Your task to perform on an android device: change keyboard looks Image 0: 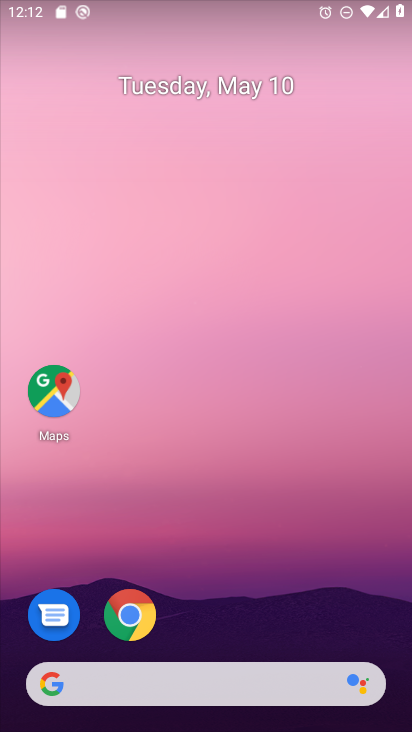
Step 0: drag from (245, 717) to (278, 217)
Your task to perform on an android device: change keyboard looks Image 1: 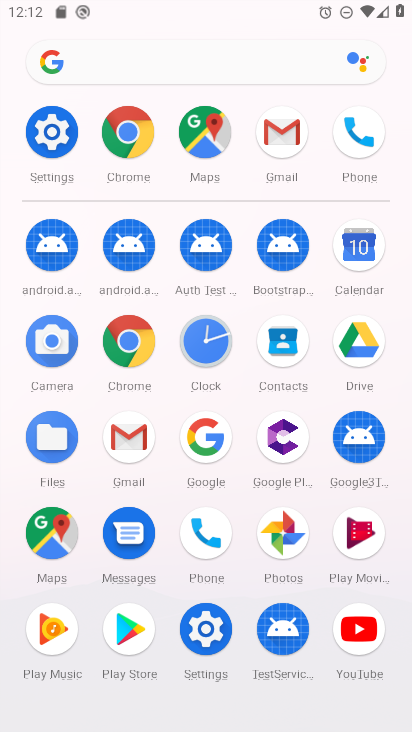
Step 1: click (59, 139)
Your task to perform on an android device: change keyboard looks Image 2: 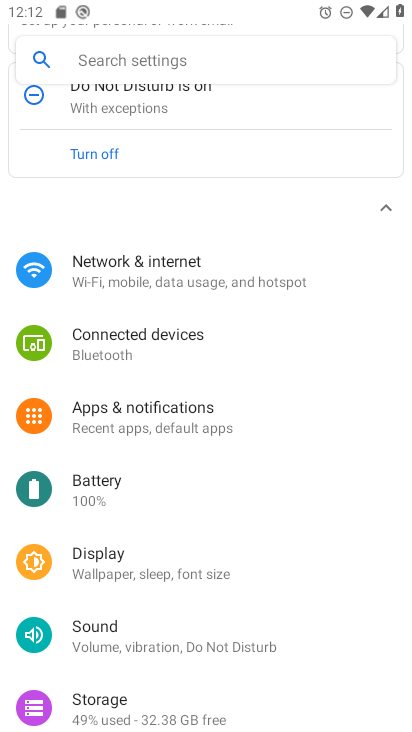
Step 2: click (164, 67)
Your task to perform on an android device: change keyboard looks Image 3: 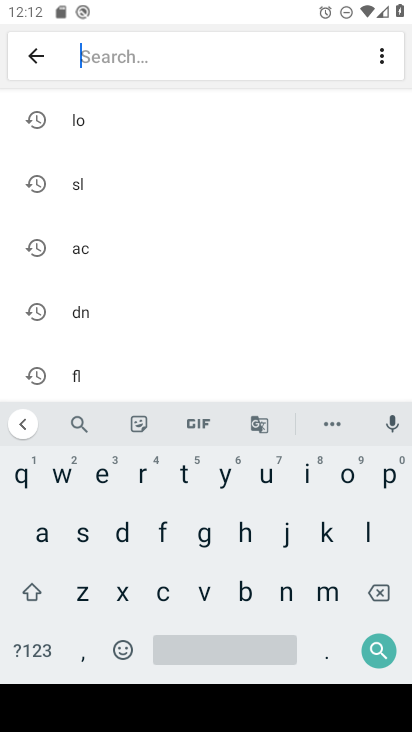
Step 3: click (327, 538)
Your task to perform on an android device: change keyboard looks Image 4: 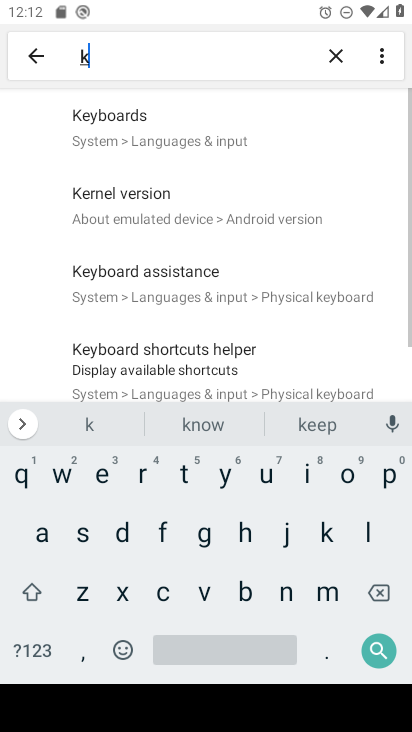
Step 4: click (101, 479)
Your task to perform on an android device: change keyboard looks Image 5: 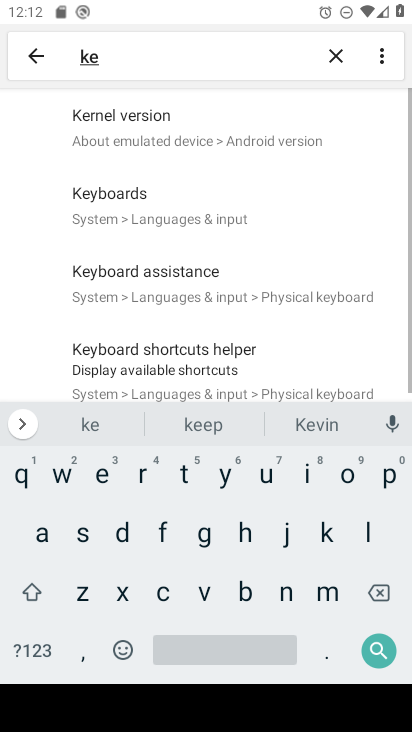
Step 5: click (225, 477)
Your task to perform on an android device: change keyboard looks Image 6: 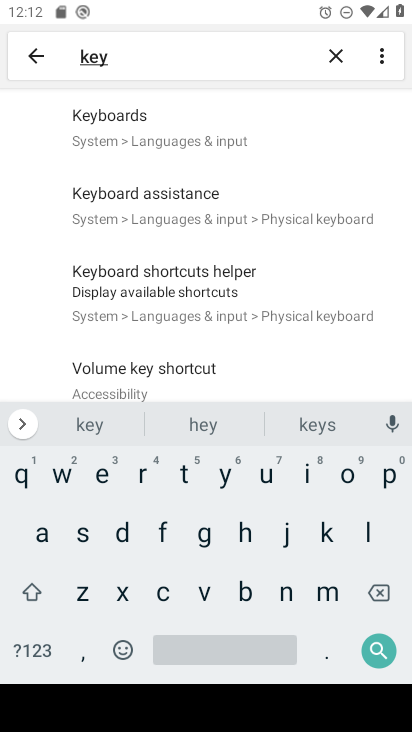
Step 6: click (124, 117)
Your task to perform on an android device: change keyboard looks Image 7: 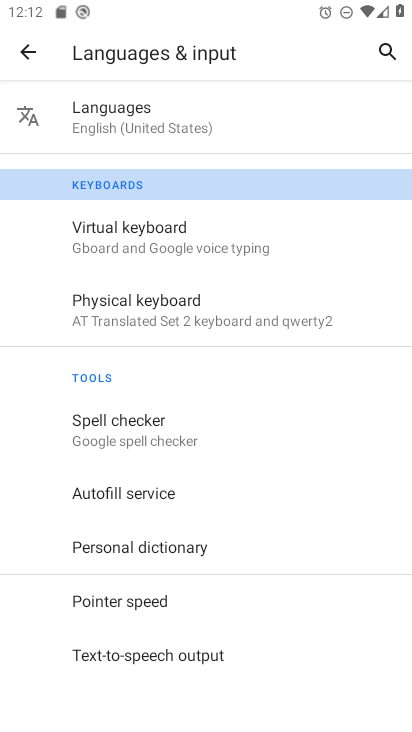
Step 7: click (121, 240)
Your task to perform on an android device: change keyboard looks Image 8: 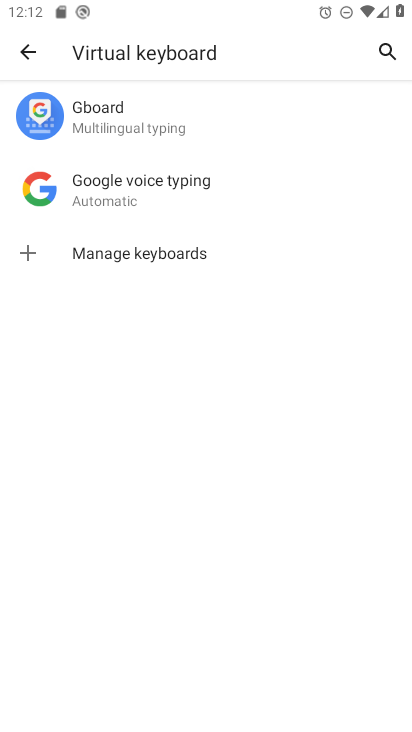
Step 8: click (162, 118)
Your task to perform on an android device: change keyboard looks Image 9: 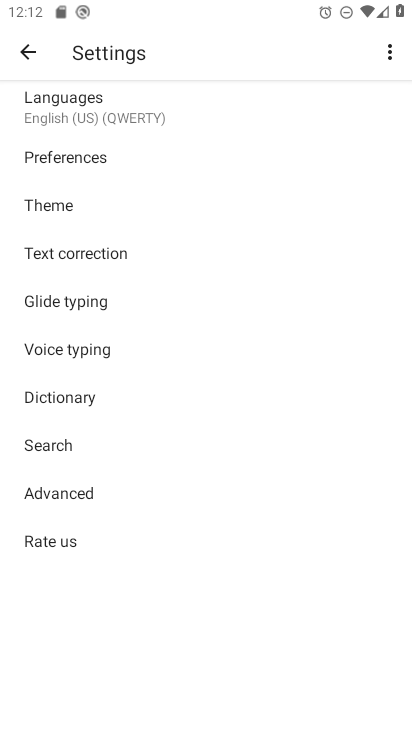
Step 9: click (82, 197)
Your task to perform on an android device: change keyboard looks Image 10: 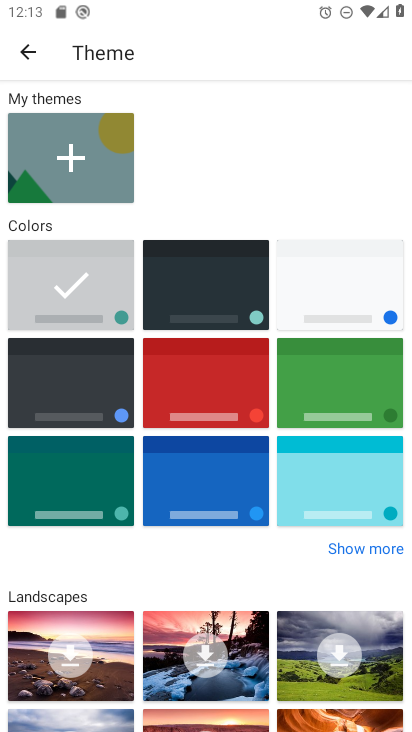
Step 10: click (349, 467)
Your task to perform on an android device: change keyboard looks Image 11: 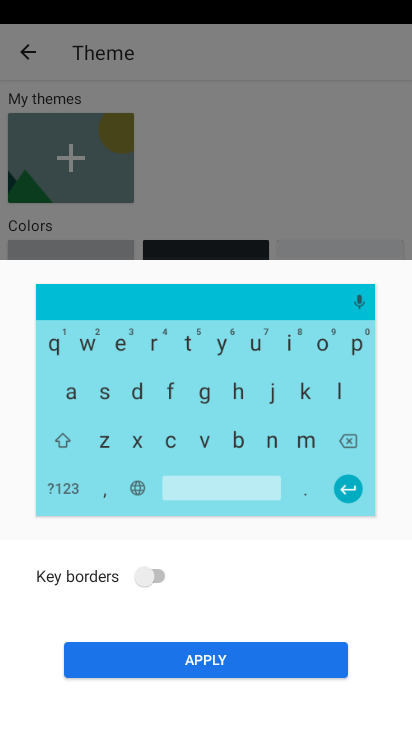
Step 11: click (154, 565)
Your task to perform on an android device: change keyboard looks Image 12: 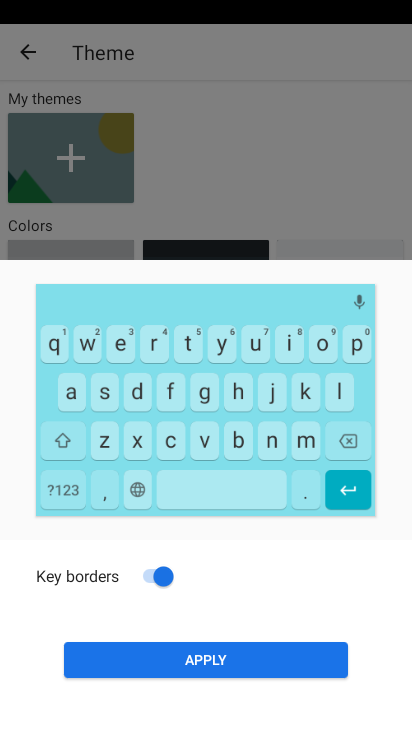
Step 12: click (241, 658)
Your task to perform on an android device: change keyboard looks Image 13: 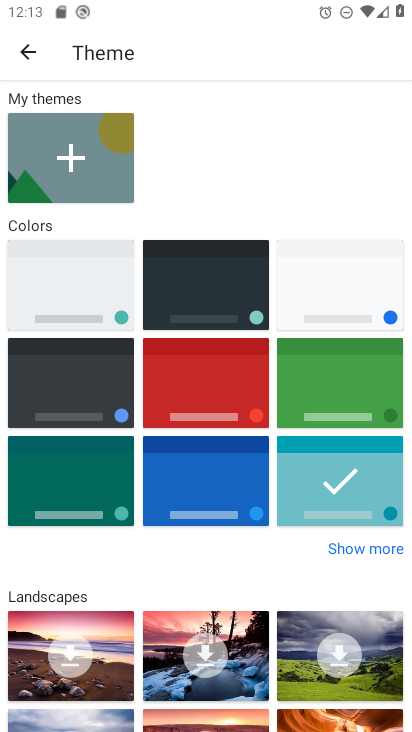
Step 13: task complete